Your task to perform on an android device: Open my contact list Image 0: 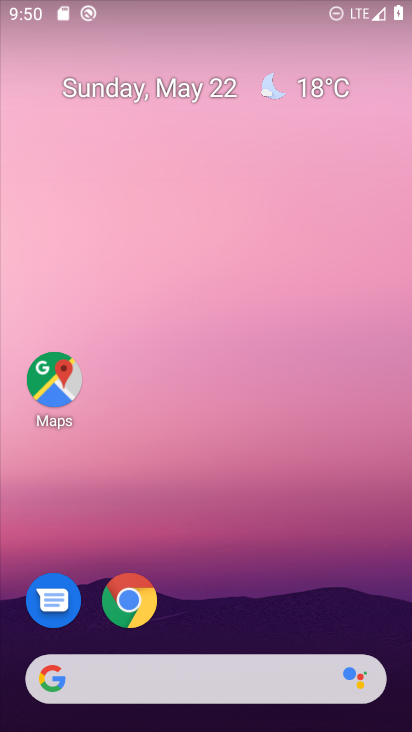
Step 0: drag from (402, 647) to (256, 88)
Your task to perform on an android device: Open my contact list Image 1: 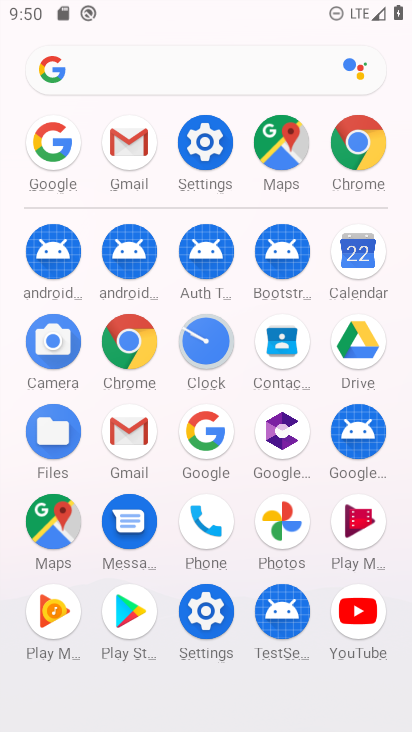
Step 1: click (282, 336)
Your task to perform on an android device: Open my contact list Image 2: 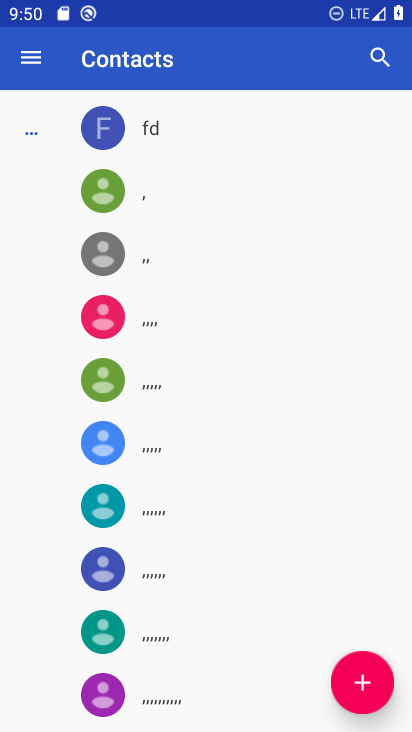
Step 2: task complete